Your task to perform on an android device: allow cookies in the chrome app Image 0: 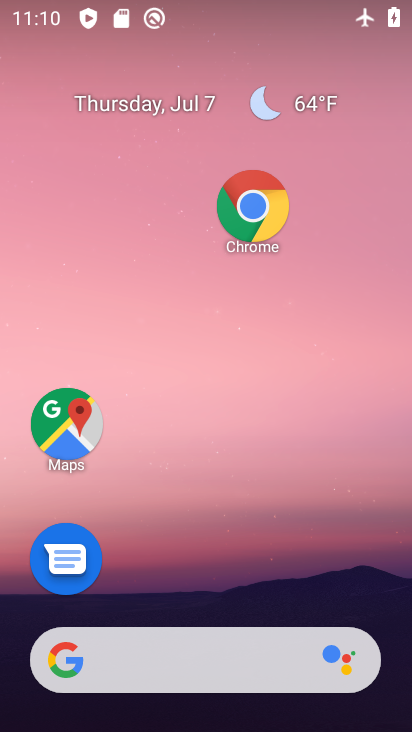
Step 0: drag from (176, 652) to (182, 205)
Your task to perform on an android device: allow cookies in the chrome app Image 1: 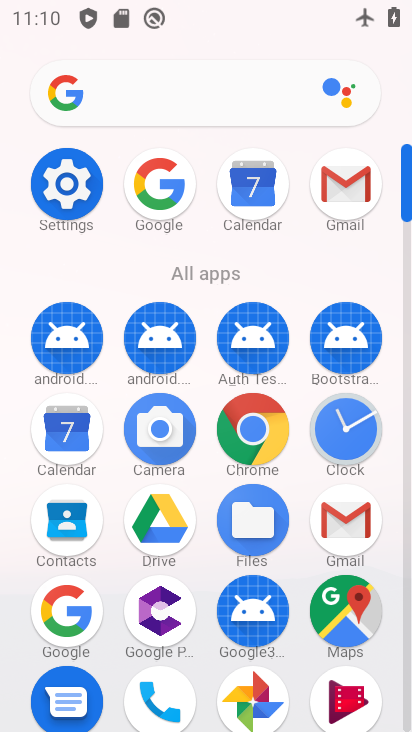
Step 1: click (243, 419)
Your task to perform on an android device: allow cookies in the chrome app Image 2: 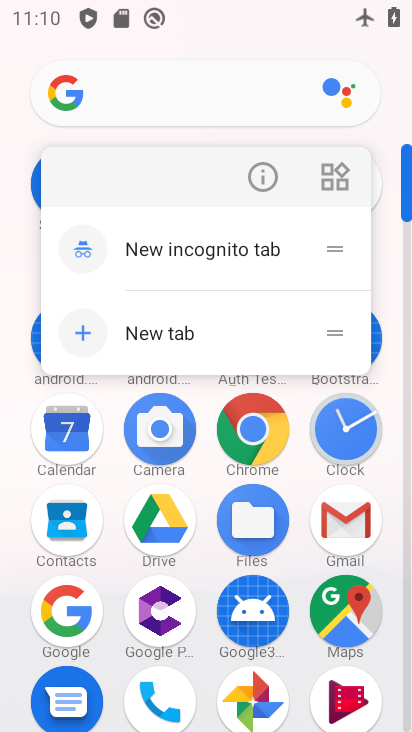
Step 2: click (247, 426)
Your task to perform on an android device: allow cookies in the chrome app Image 3: 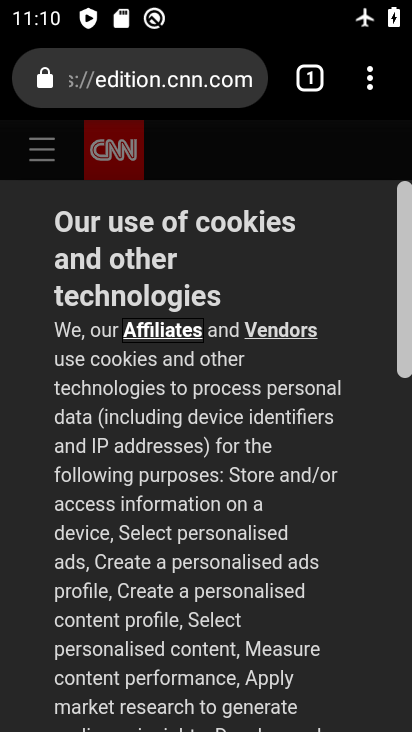
Step 3: click (364, 80)
Your task to perform on an android device: allow cookies in the chrome app Image 4: 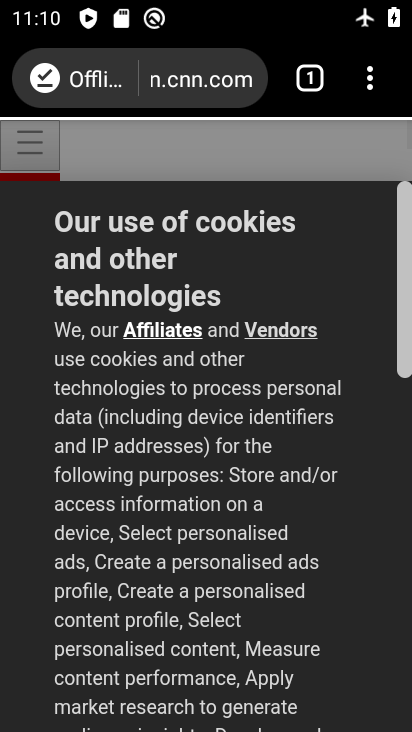
Step 4: click (375, 75)
Your task to perform on an android device: allow cookies in the chrome app Image 5: 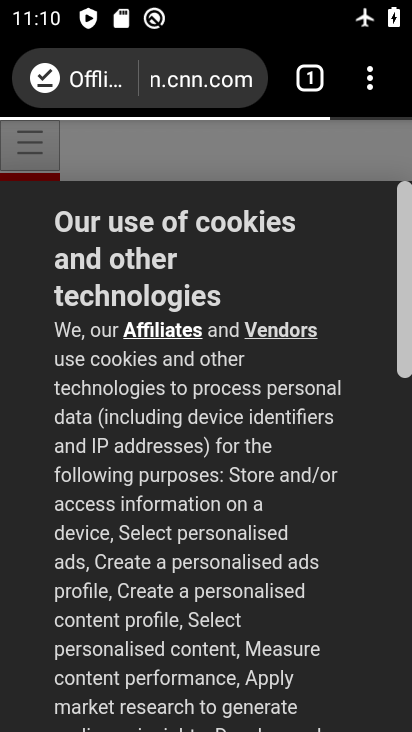
Step 5: click (376, 72)
Your task to perform on an android device: allow cookies in the chrome app Image 6: 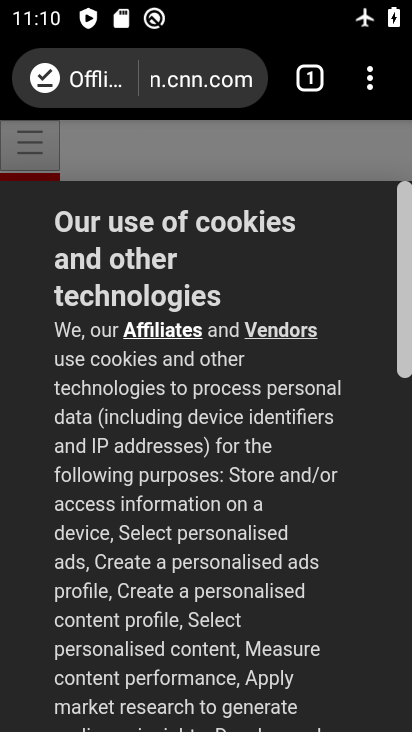
Step 6: click (366, 78)
Your task to perform on an android device: allow cookies in the chrome app Image 7: 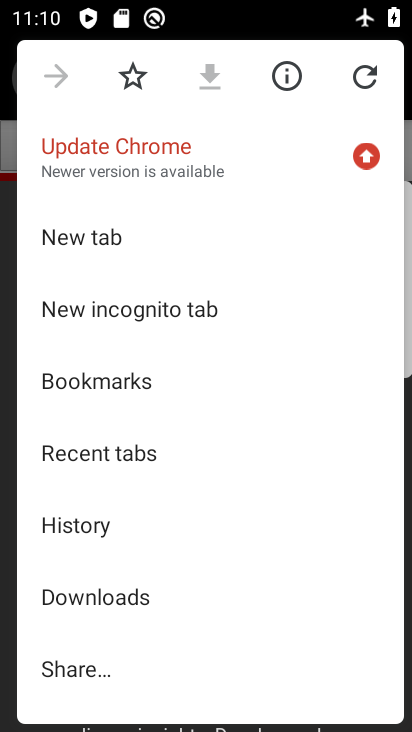
Step 7: drag from (123, 640) to (163, 275)
Your task to perform on an android device: allow cookies in the chrome app Image 8: 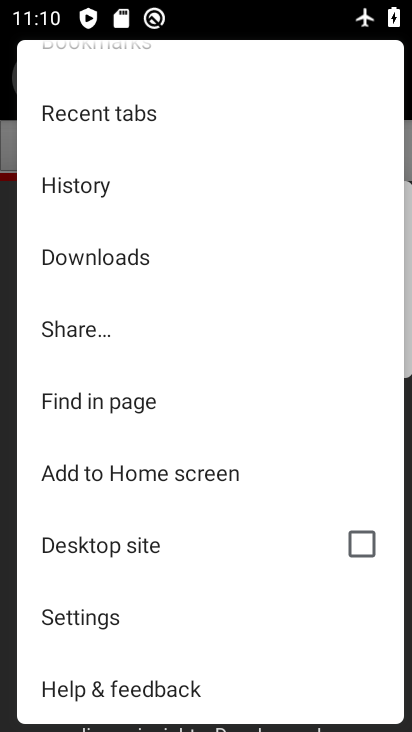
Step 8: click (84, 610)
Your task to perform on an android device: allow cookies in the chrome app Image 9: 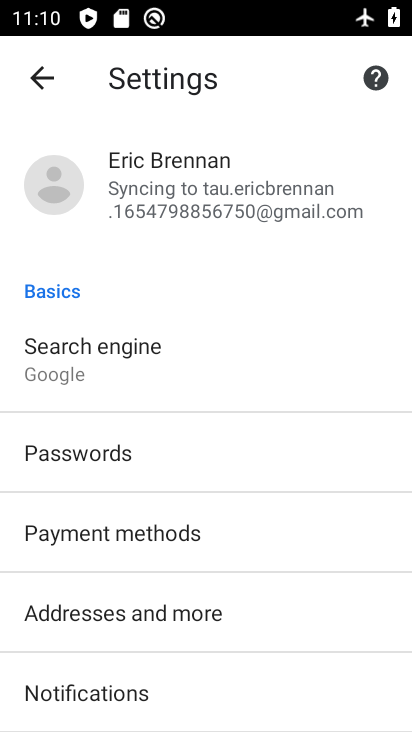
Step 9: drag from (51, 676) to (74, 245)
Your task to perform on an android device: allow cookies in the chrome app Image 10: 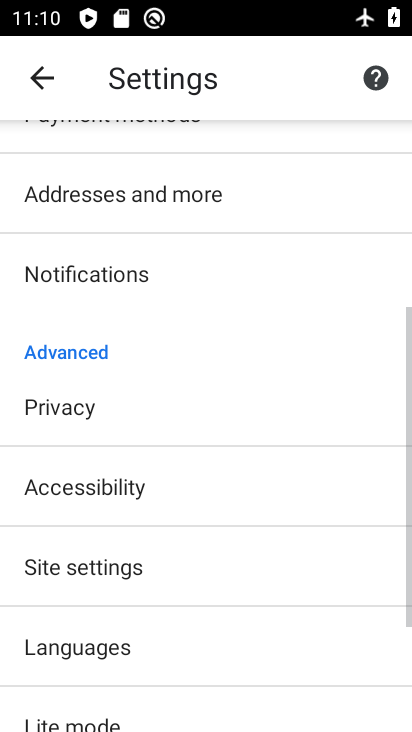
Step 10: click (75, 569)
Your task to perform on an android device: allow cookies in the chrome app Image 11: 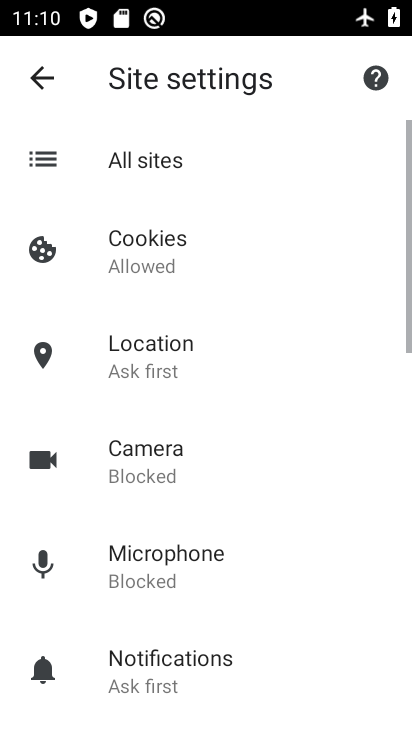
Step 11: click (156, 265)
Your task to perform on an android device: allow cookies in the chrome app Image 12: 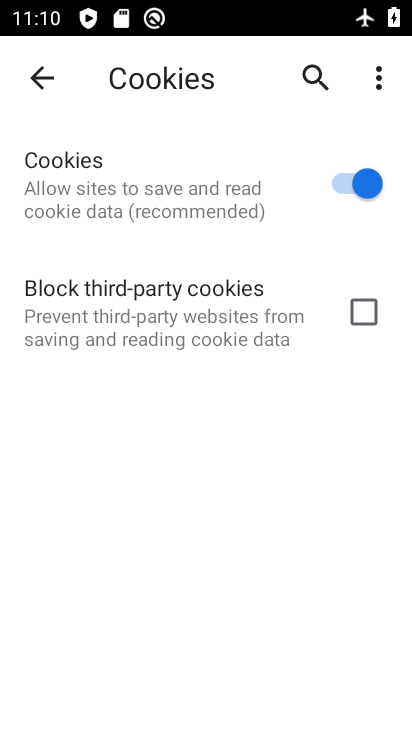
Step 12: task complete